Your task to perform on an android device: Clear all items from cart on target. Image 0: 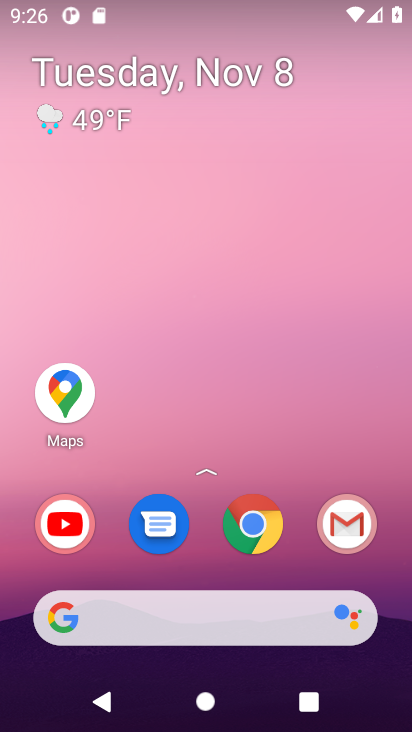
Step 0: click (259, 528)
Your task to perform on an android device: Clear all items from cart on target. Image 1: 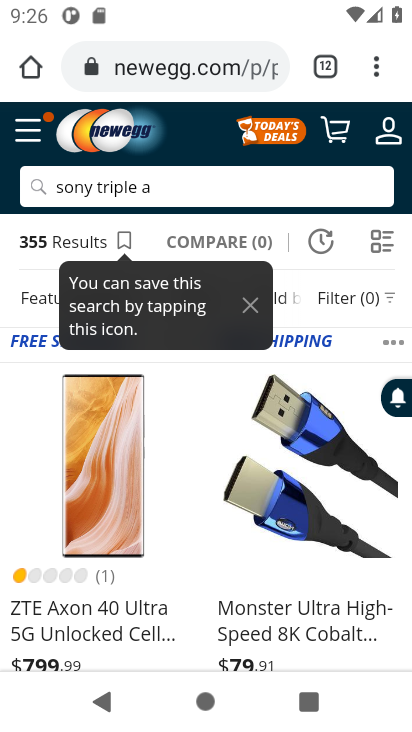
Step 1: click (207, 75)
Your task to perform on an android device: Clear all items from cart on target. Image 2: 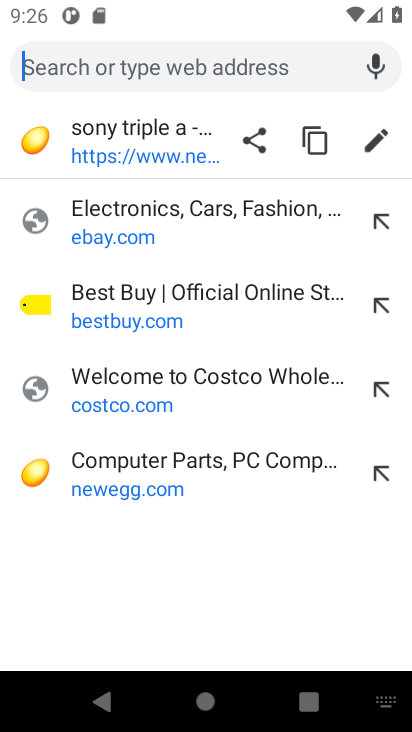
Step 2: type "target.com"
Your task to perform on an android device: Clear all items from cart on target. Image 3: 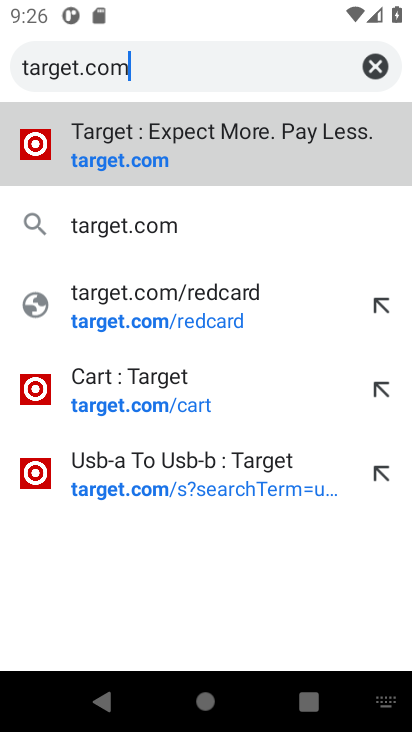
Step 3: click (145, 148)
Your task to perform on an android device: Clear all items from cart on target. Image 4: 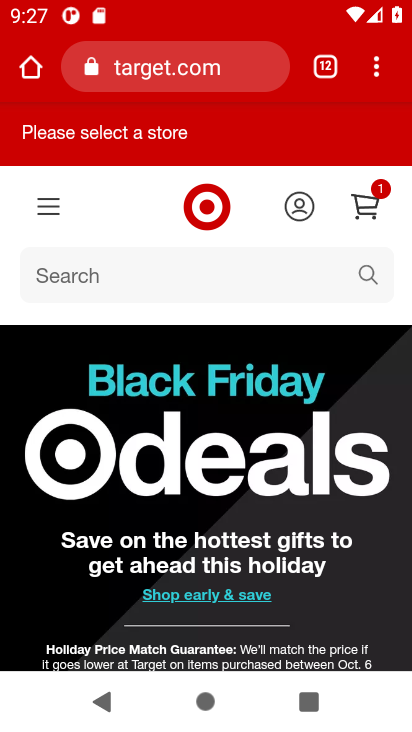
Step 4: click (362, 211)
Your task to perform on an android device: Clear all items from cart on target. Image 5: 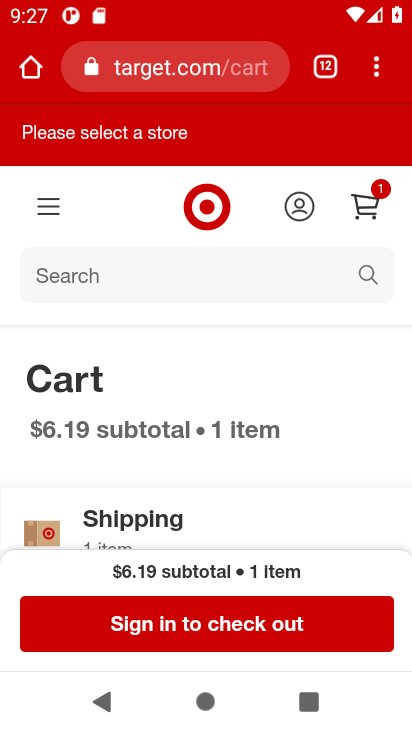
Step 5: drag from (212, 462) to (223, 168)
Your task to perform on an android device: Clear all items from cart on target. Image 6: 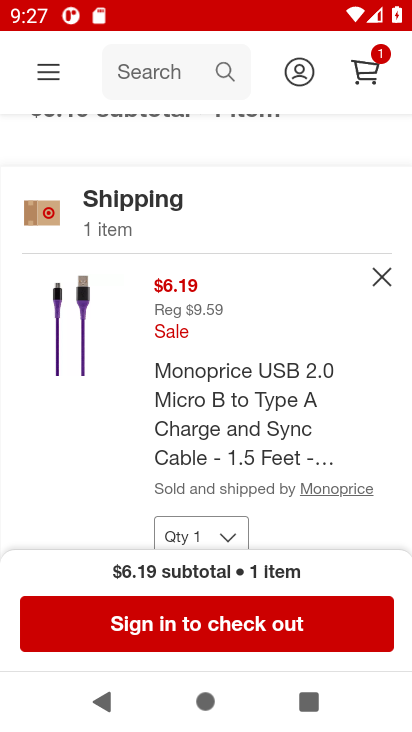
Step 6: click (382, 273)
Your task to perform on an android device: Clear all items from cart on target. Image 7: 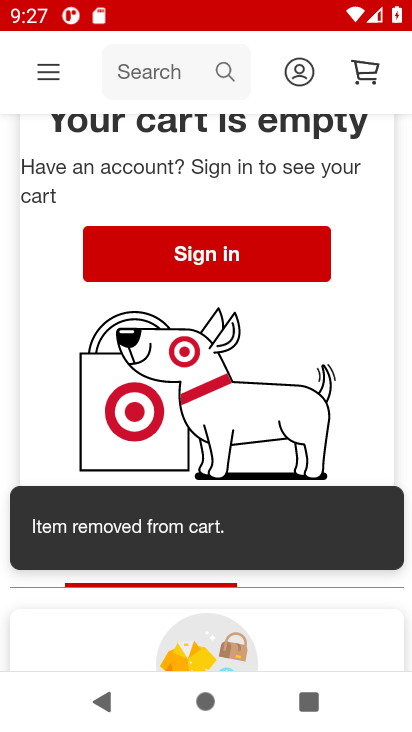
Step 7: task complete